Your task to perform on an android device: Go to Google maps Image 0: 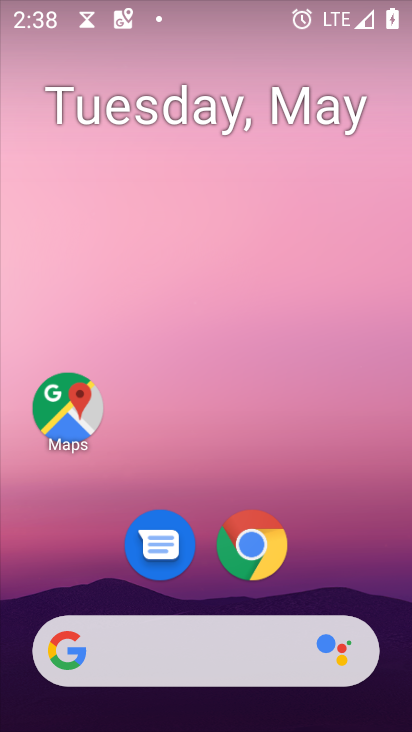
Step 0: drag from (338, 555) to (255, 3)
Your task to perform on an android device: Go to Google maps Image 1: 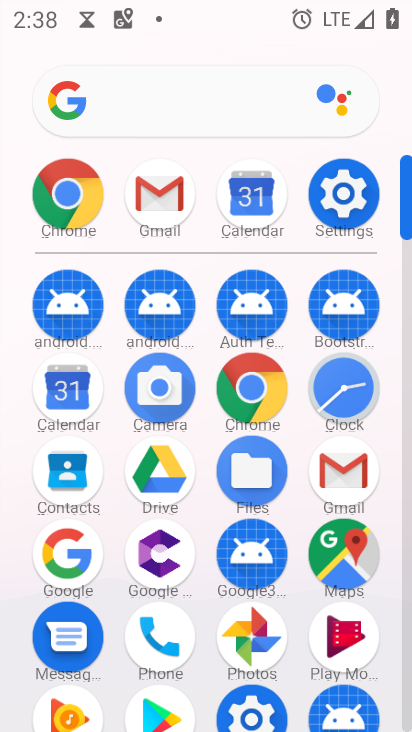
Step 1: drag from (9, 547) to (26, 290)
Your task to perform on an android device: Go to Google maps Image 2: 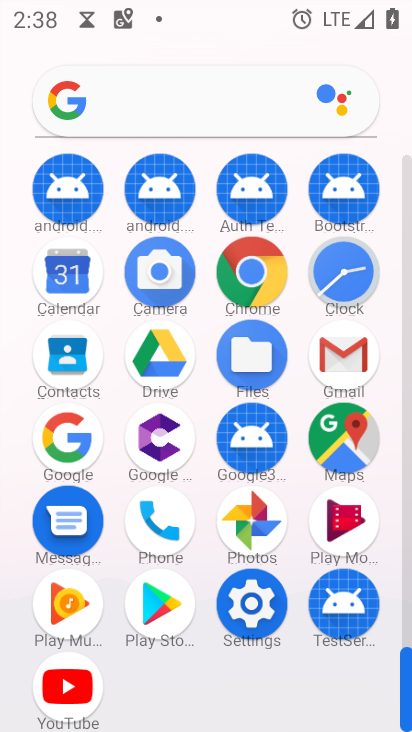
Step 2: click (343, 438)
Your task to perform on an android device: Go to Google maps Image 3: 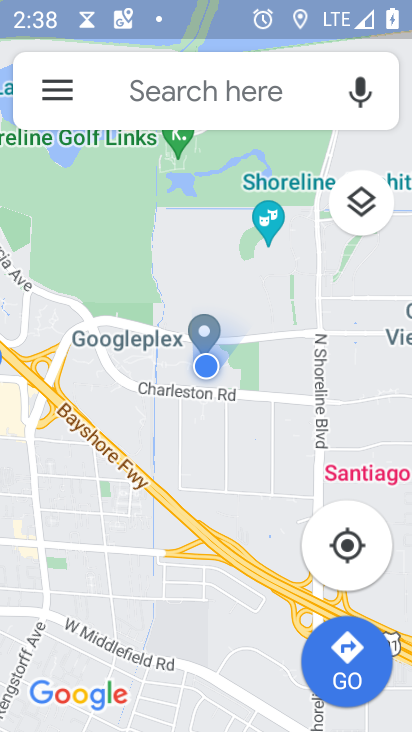
Step 3: task complete